Your task to perform on an android device: see sites visited before in the chrome app Image 0: 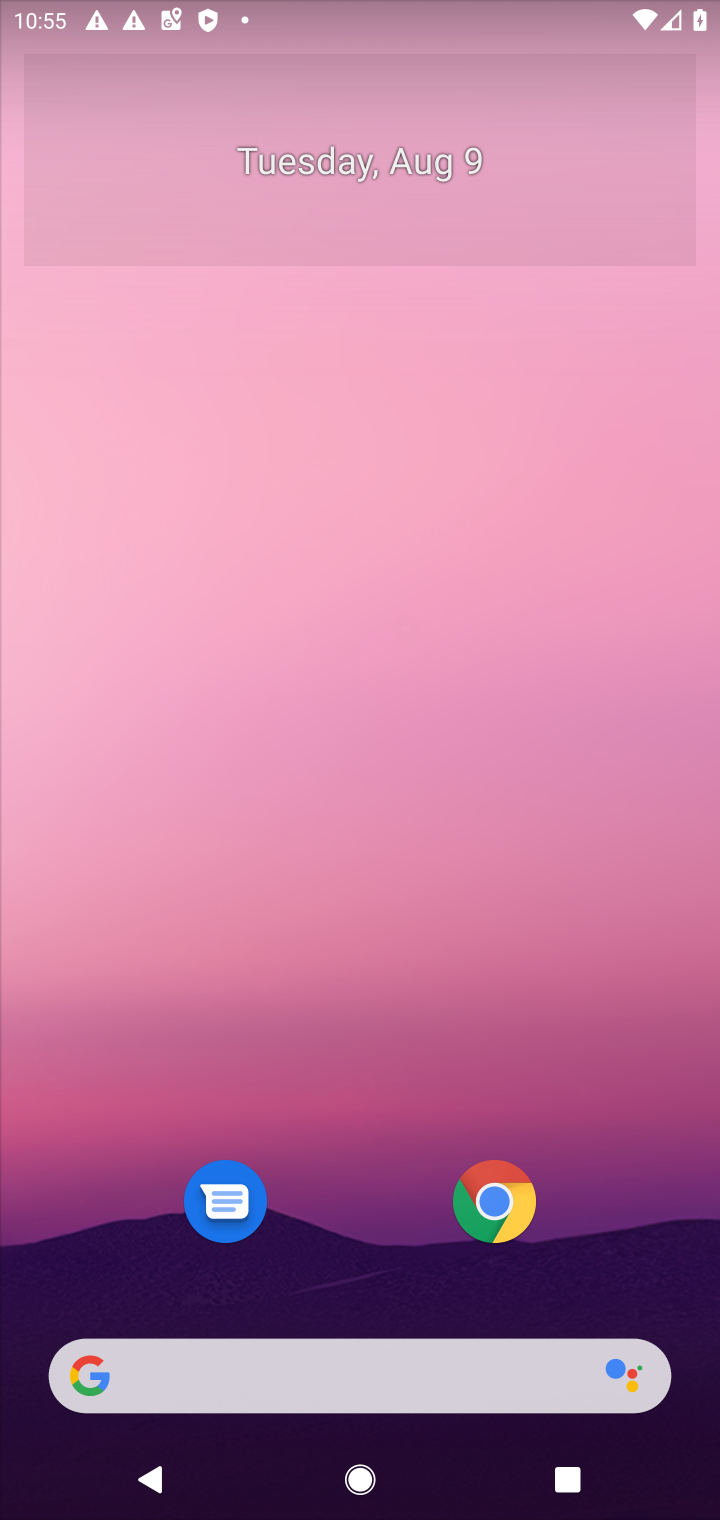
Step 0: press home button
Your task to perform on an android device: see sites visited before in the chrome app Image 1: 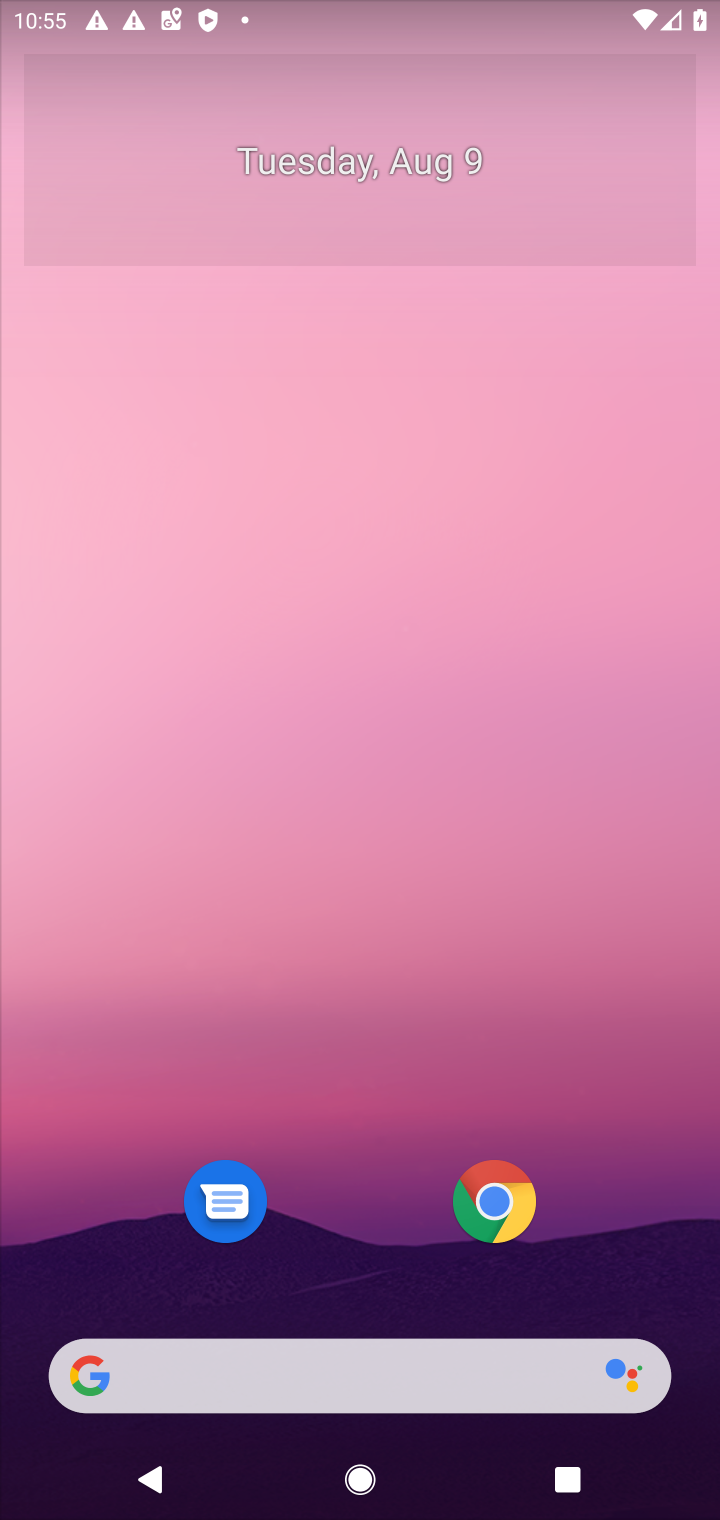
Step 1: click (506, 1183)
Your task to perform on an android device: see sites visited before in the chrome app Image 2: 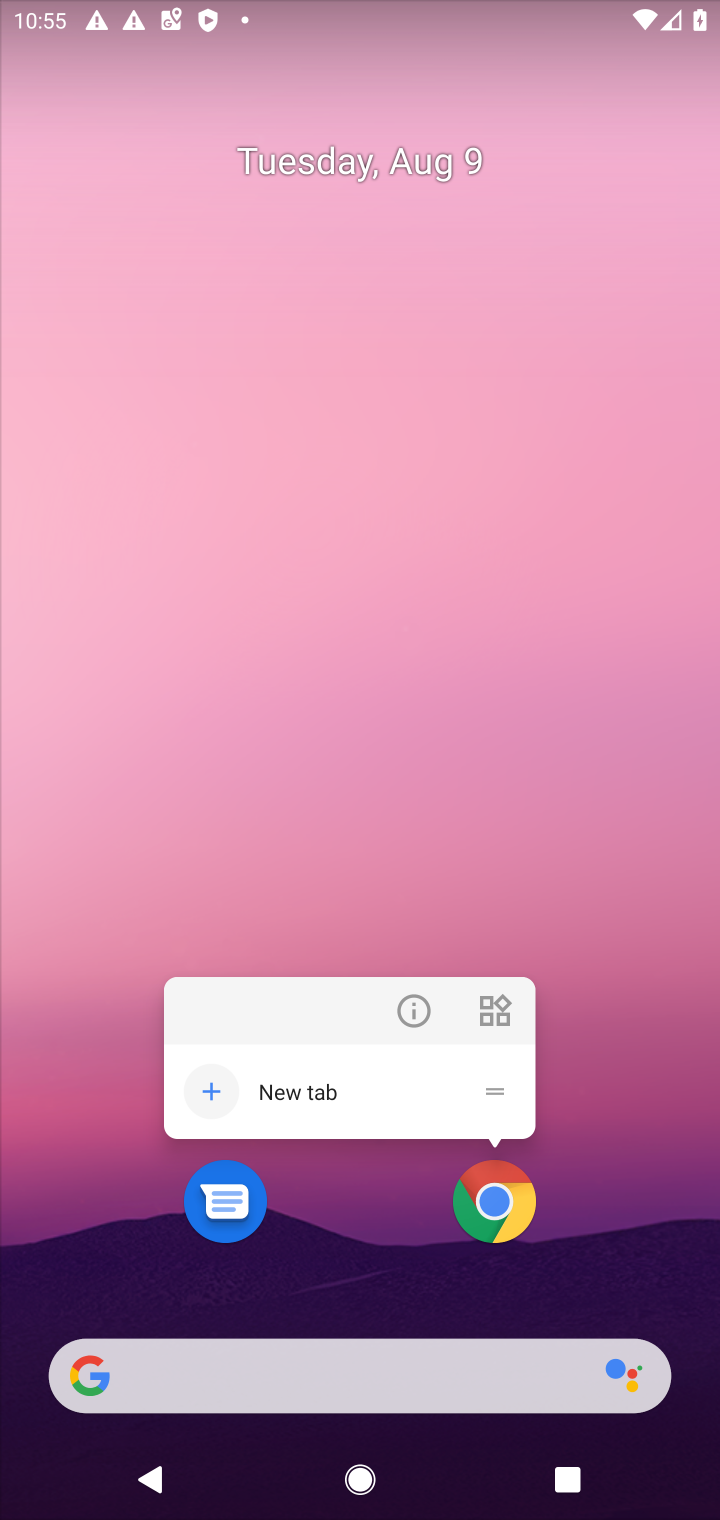
Step 2: click (488, 1194)
Your task to perform on an android device: see sites visited before in the chrome app Image 3: 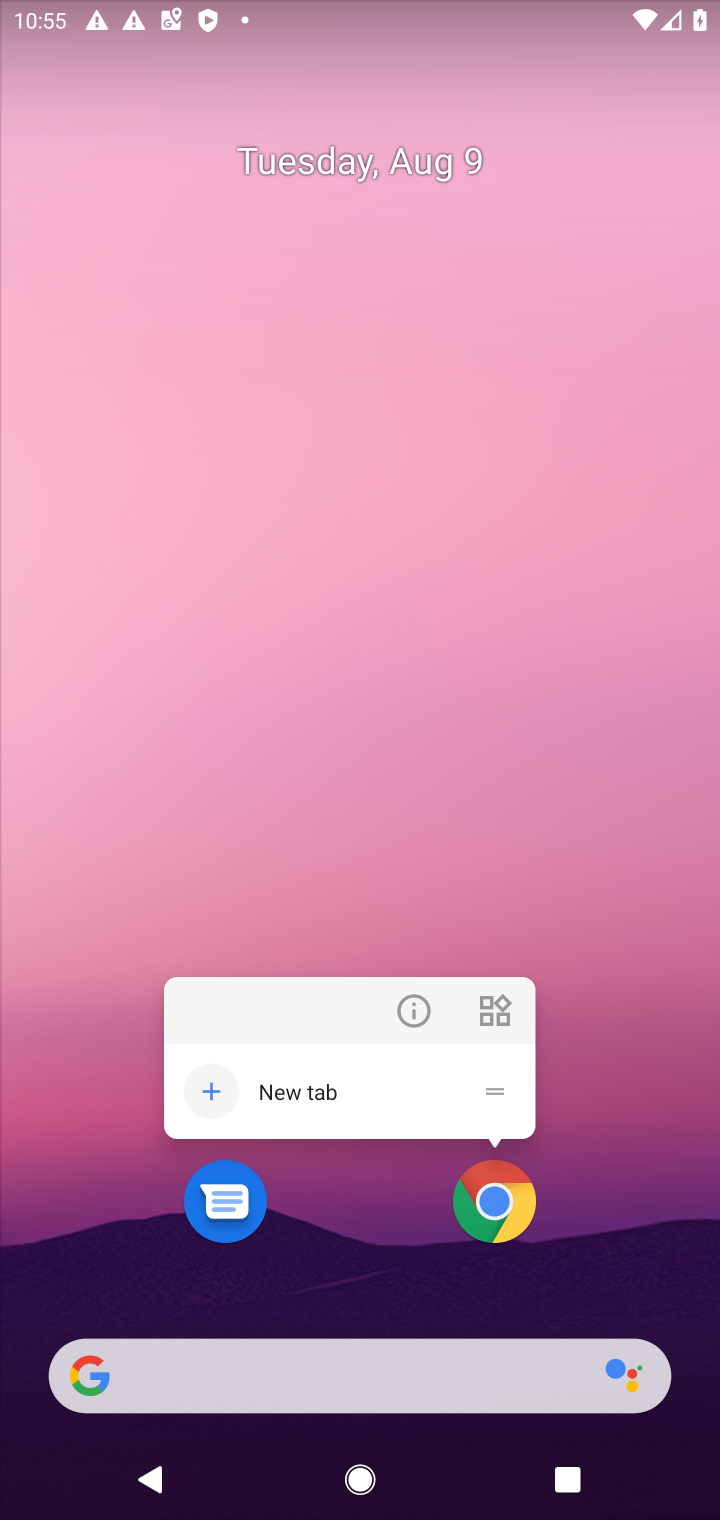
Step 3: click (486, 1203)
Your task to perform on an android device: see sites visited before in the chrome app Image 4: 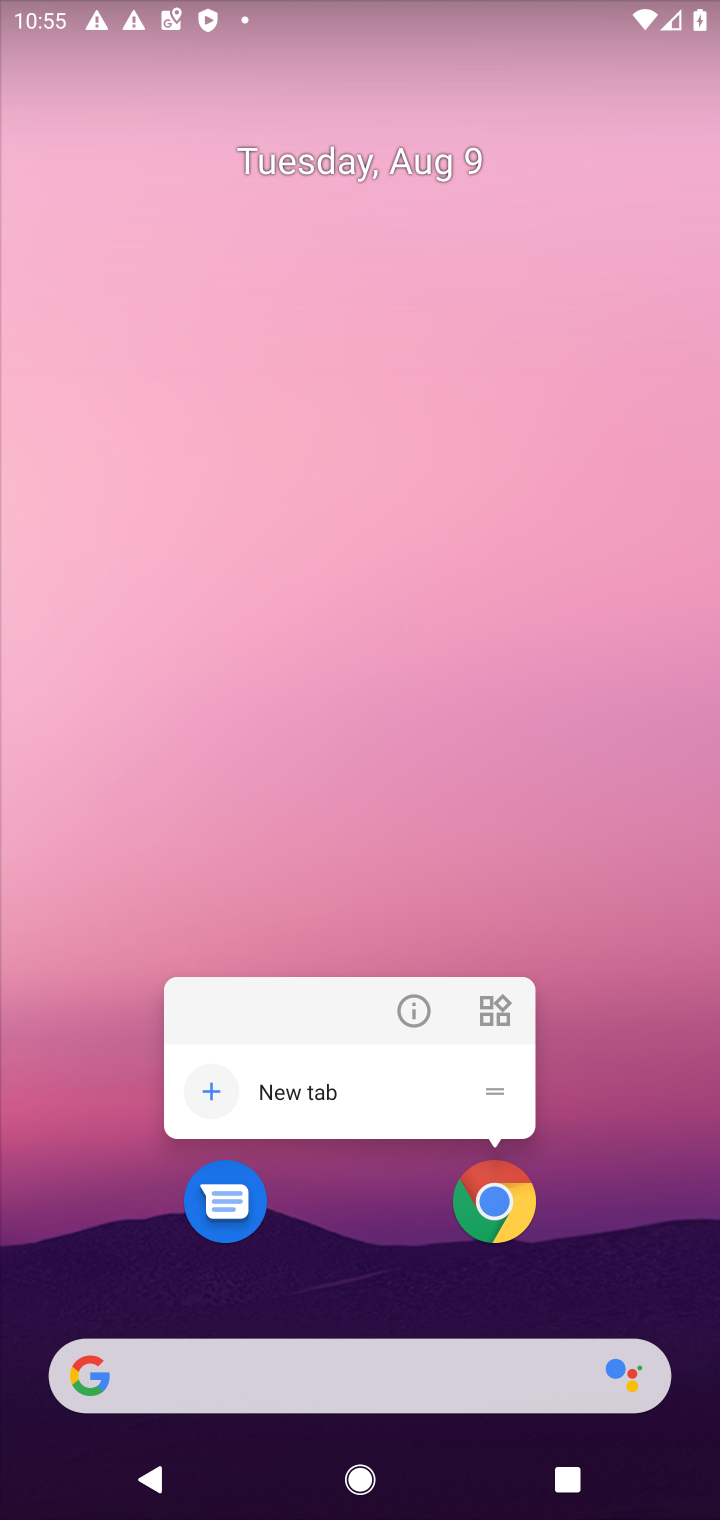
Step 4: click (496, 1205)
Your task to perform on an android device: see sites visited before in the chrome app Image 5: 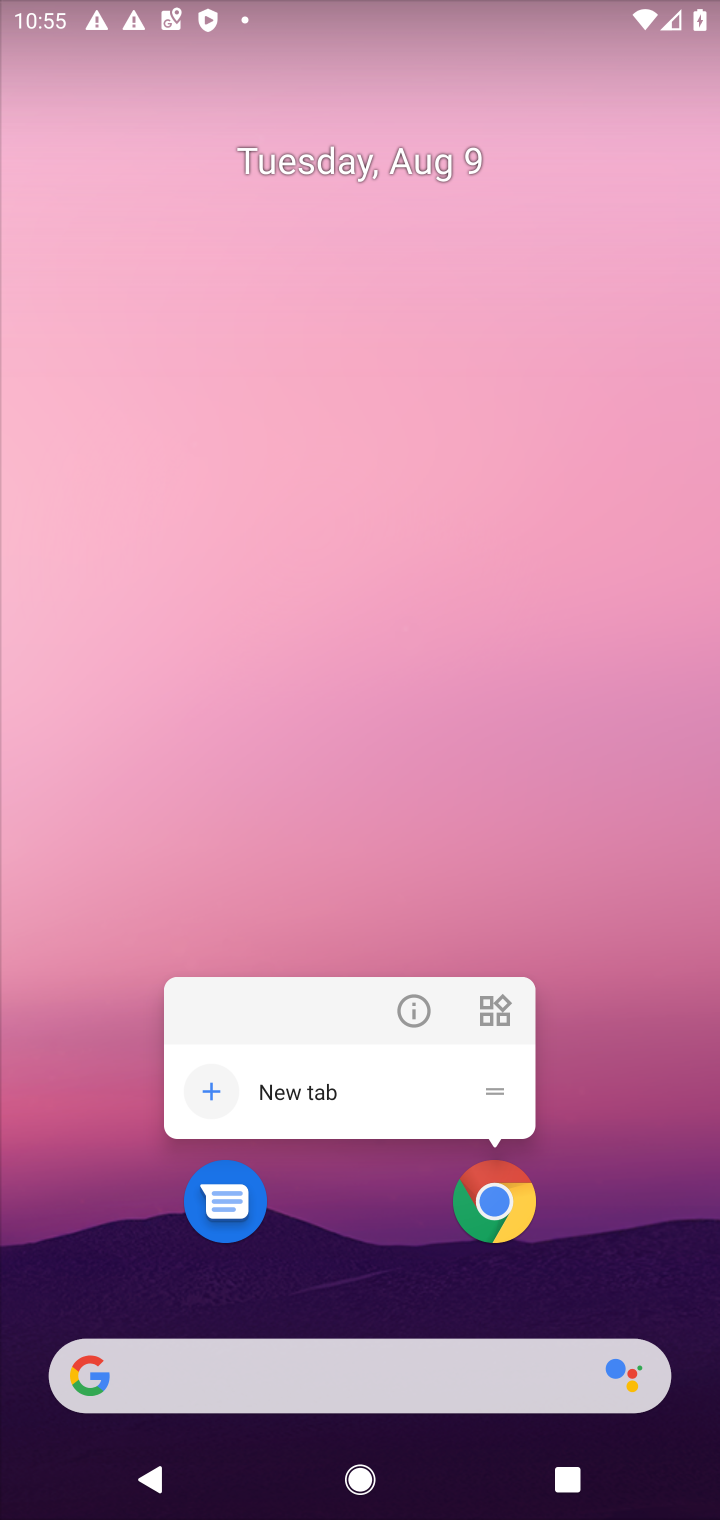
Step 5: click (498, 1213)
Your task to perform on an android device: see sites visited before in the chrome app Image 6: 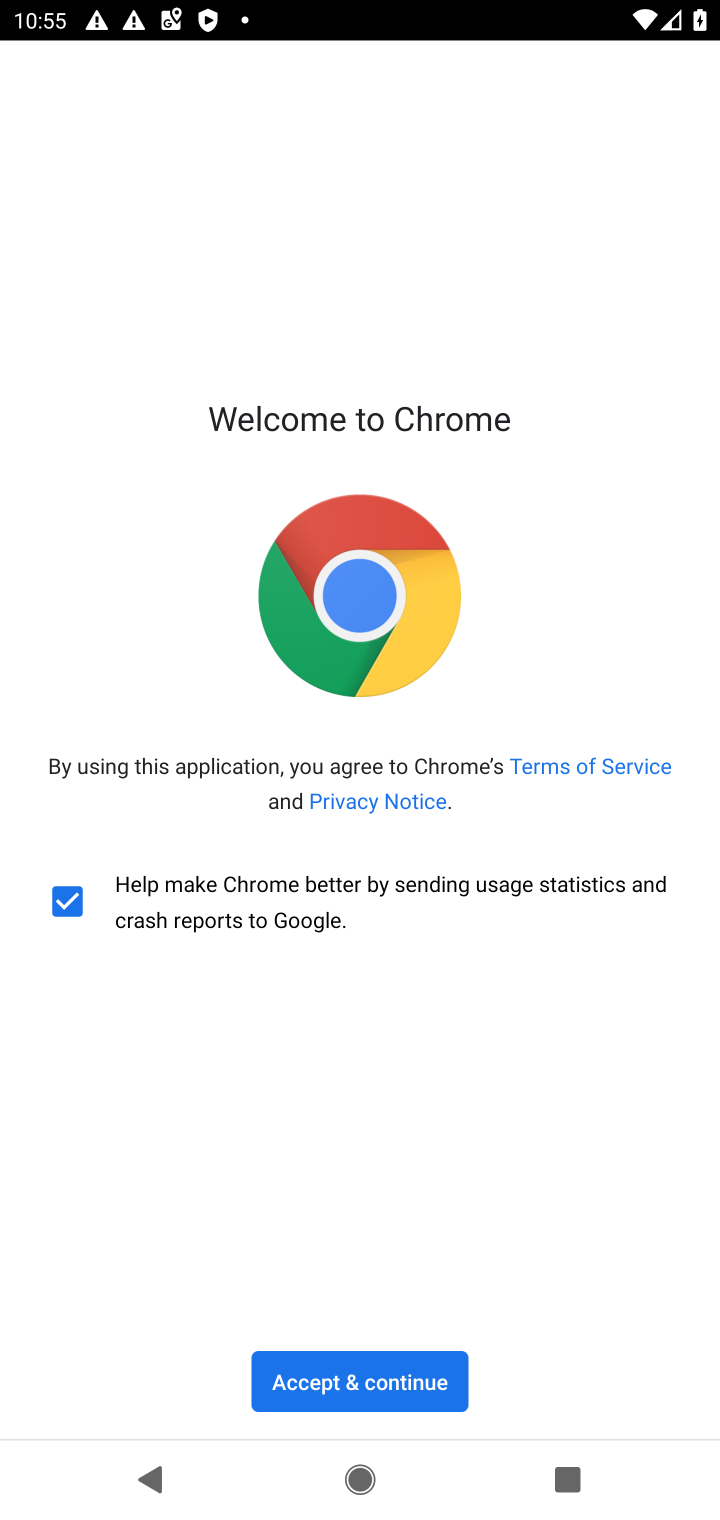
Step 6: click (335, 1376)
Your task to perform on an android device: see sites visited before in the chrome app Image 7: 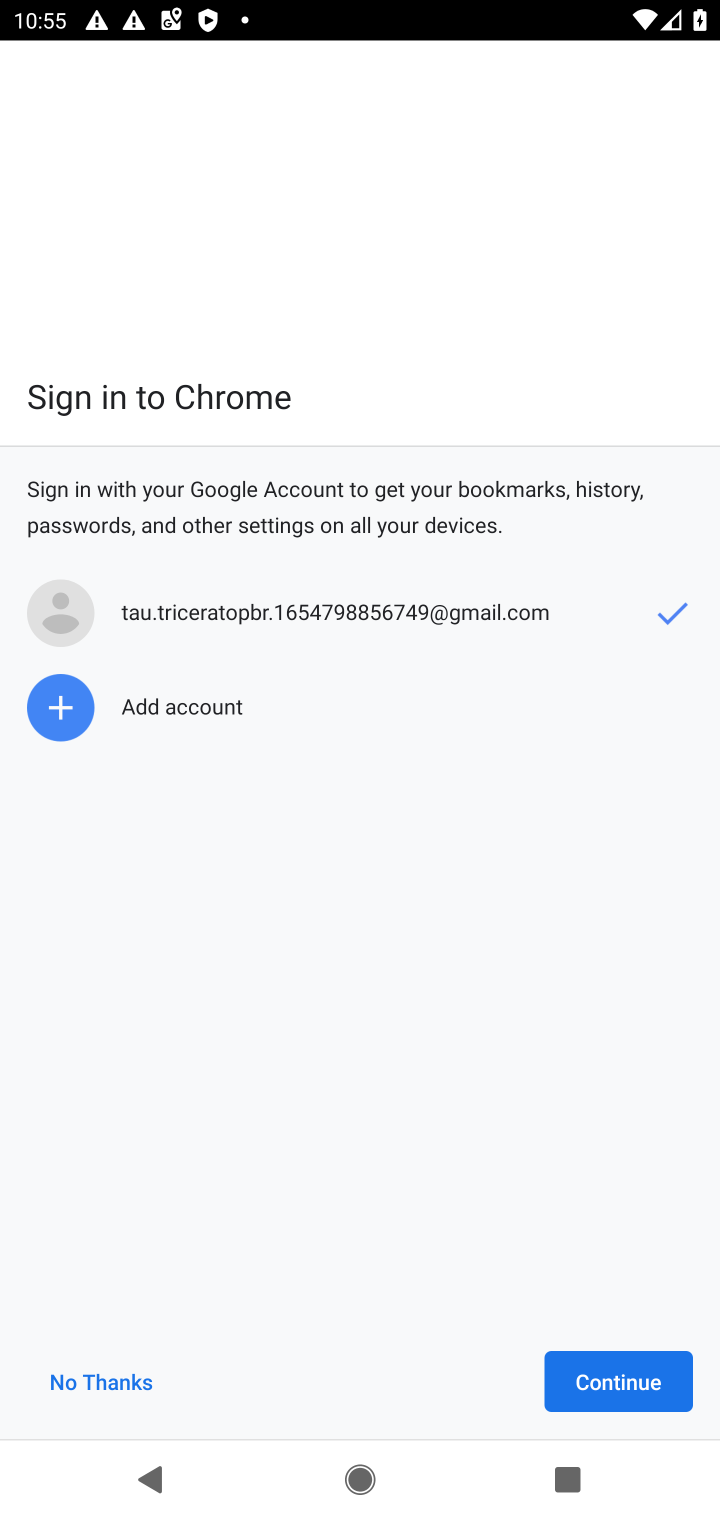
Step 7: click (662, 1393)
Your task to perform on an android device: see sites visited before in the chrome app Image 8: 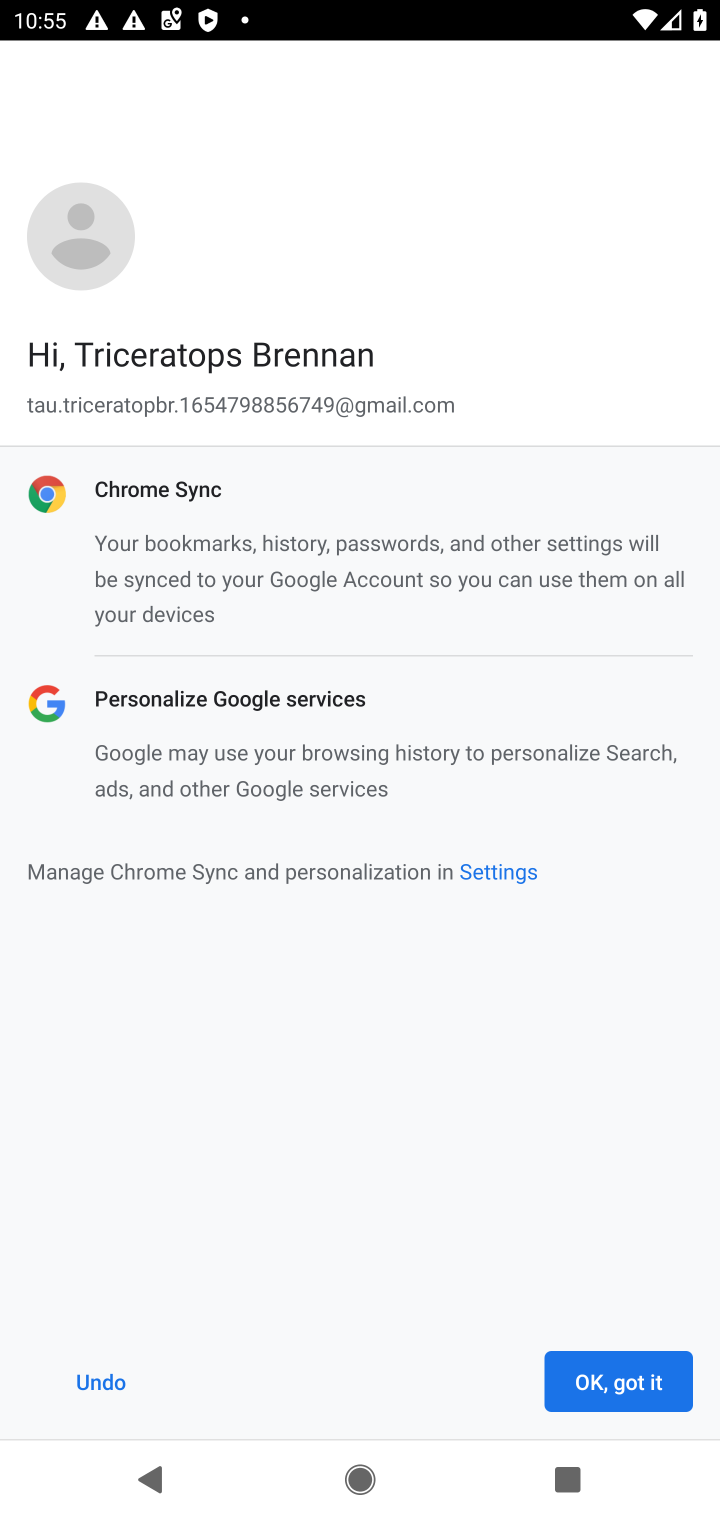
Step 8: click (662, 1393)
Your task to perform on an android device: see sites visited before in the chrome app Image 9: 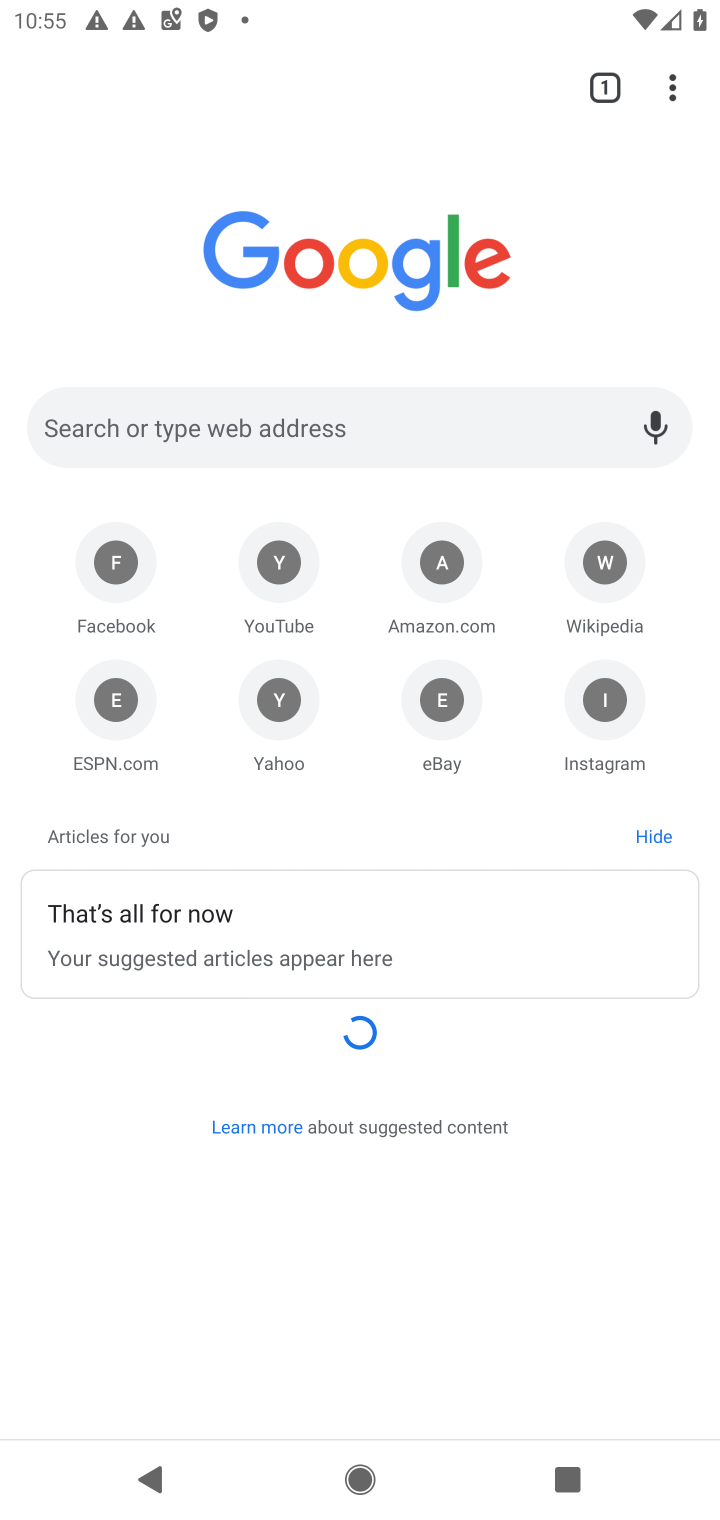
Step 9: task complete